Your task to perform on an android device: Find coffee shops on Maps Image 0: 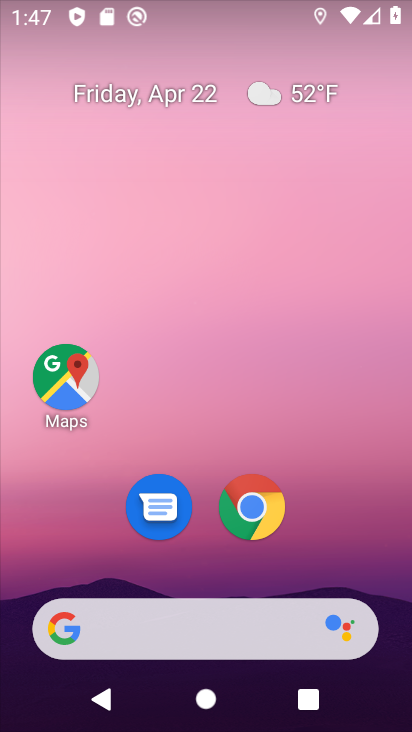
Step 0: drag from (163, 630) to (202, 149)
Your task to perform on an android device: Find coffee shops on Maps Image 1: 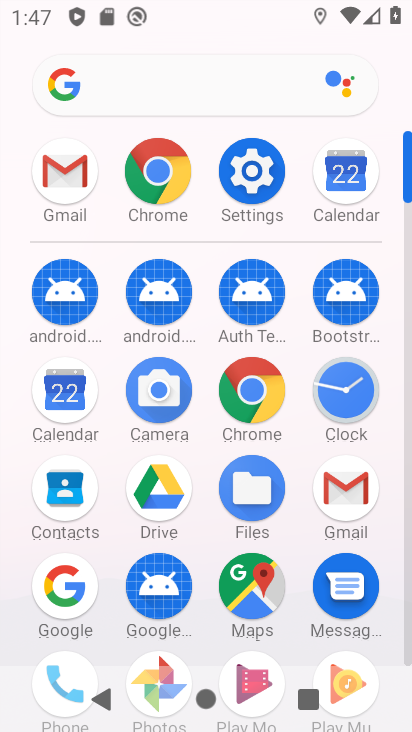
Step 1: click (262, 583)
Your task to perform on an android device: Find coffee shops on Maps Image 2: 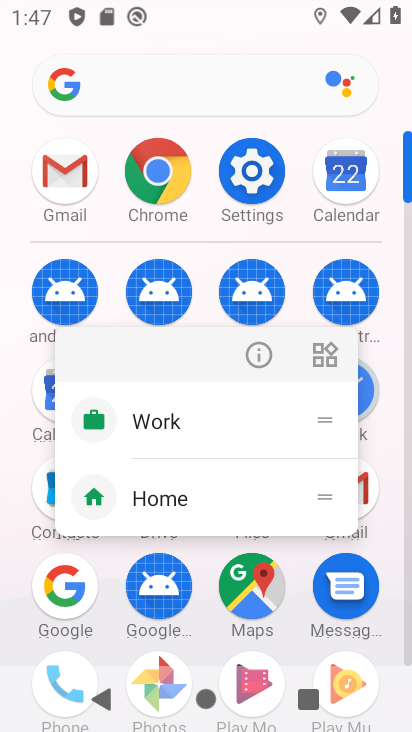
Step 2: click (256, 597)
Your task to perform on an android device: Find coffee shops on Maps Image 3: 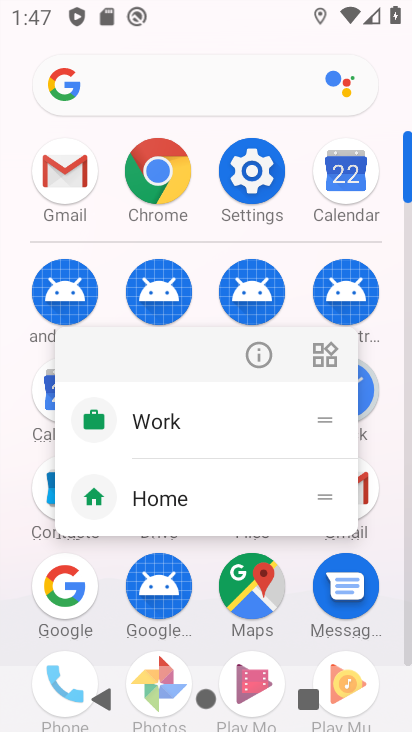
Step 3: click (250, 592)
Your task to perform on an android device: Find coffee shops on Maps Image 4: 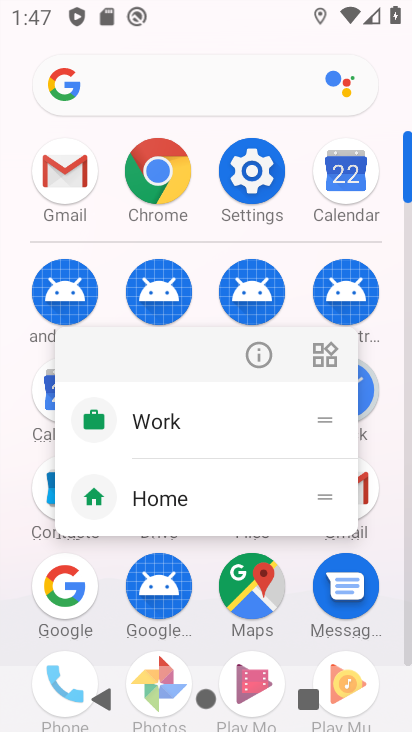
Step 4: click (242, 603)
Your task to perform on an android device: Find coffee shops on Maps Image 5: 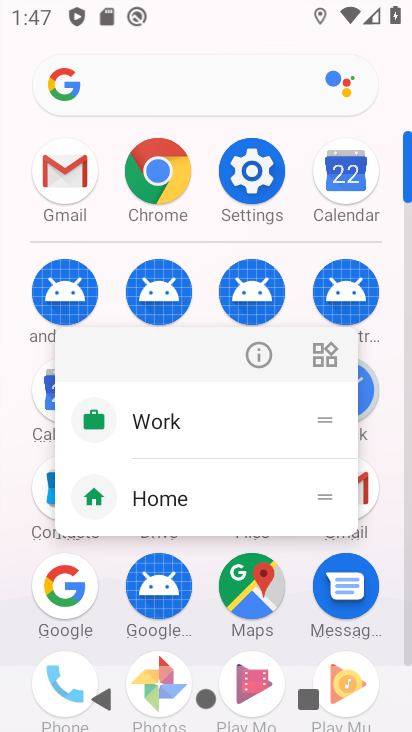
Step 5: click (249, 596)
Your task to perform on an android device: Find coffee shops on Maps Image 6: 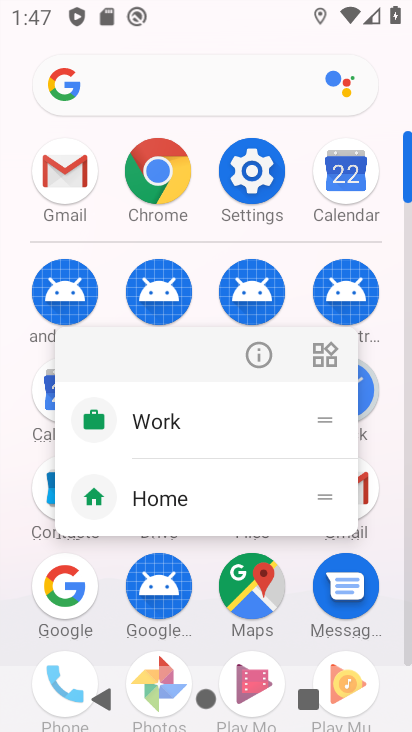
Step 6: click (250, 601)
Your task to perform on an android device: Find coffee shops on Maps Image 7: 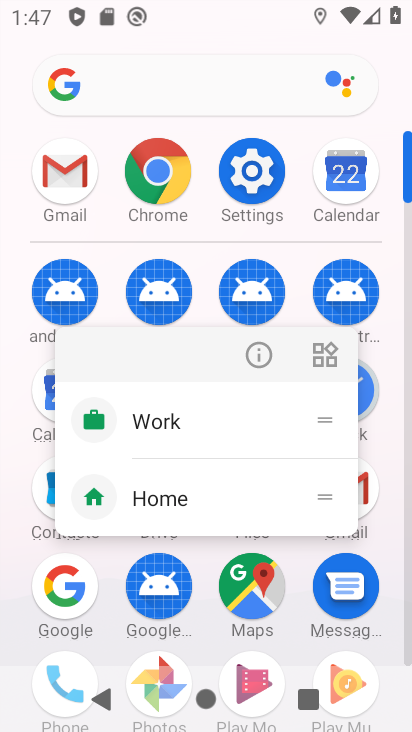
Step 7: click (250, 601)
Your task to perform on an android device: Find coffee shops on Maps Image 8: 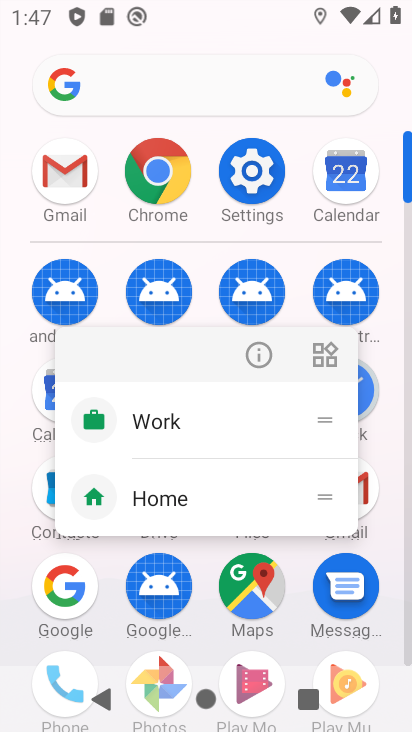
Step 8: click (250, 601)
Your task to perform on an android device: Find coffee shops on Maps Image 9: 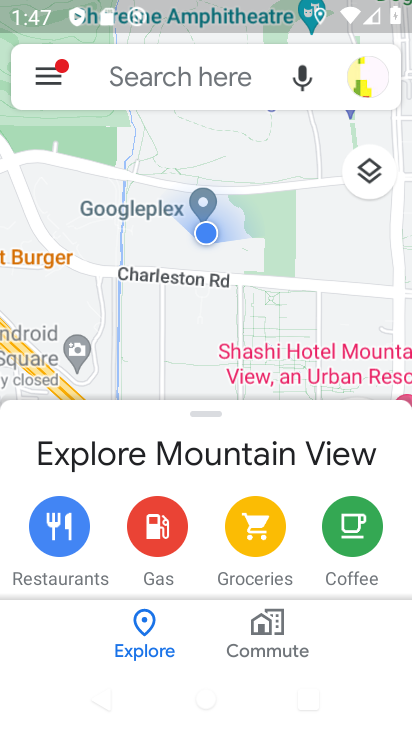
Step 9: click (155, 66)
Your task to perform on an android device: Find coffee shops on Maps Image 10: 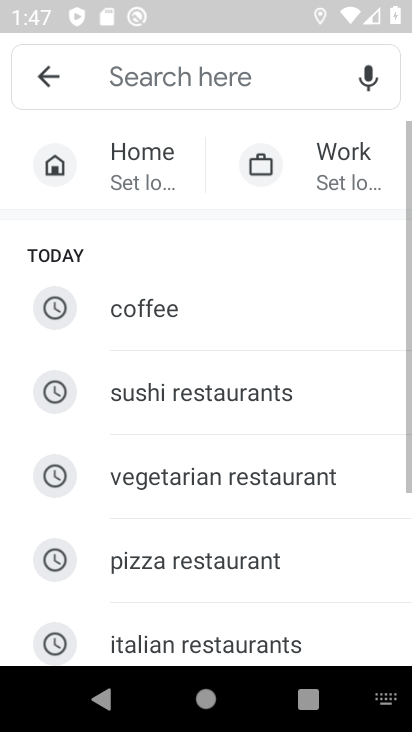
Step 10: click (145, 312)
Your task to perform on an android device: Find coffee shops on Maps Image 11: 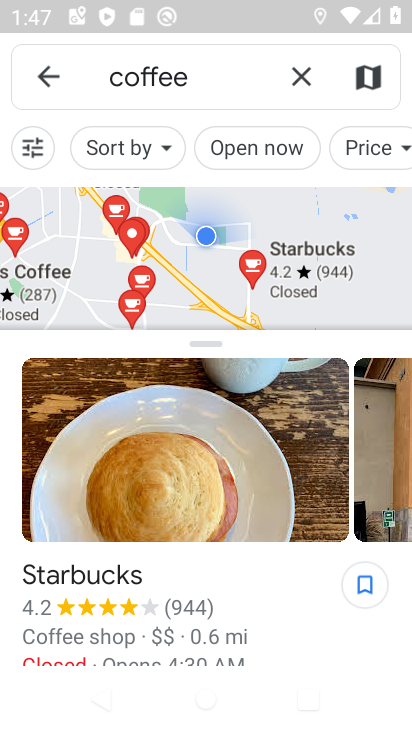
Step 11: task complete